Your task to perform on an android device: Go to Google Image 0: 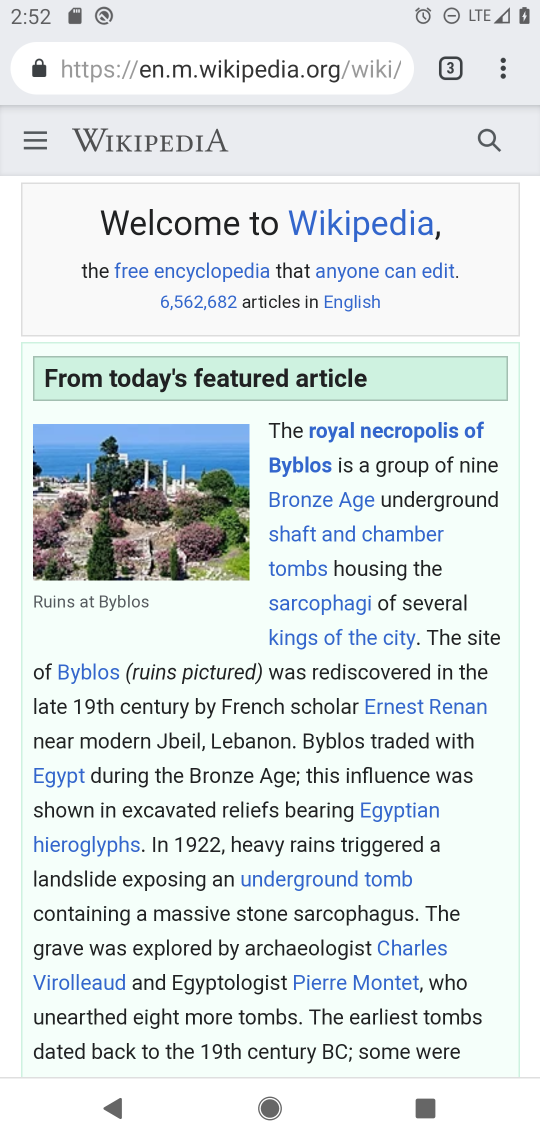
Step 0: press home button
Your task to perform on an android device: Go to Google Image 1: 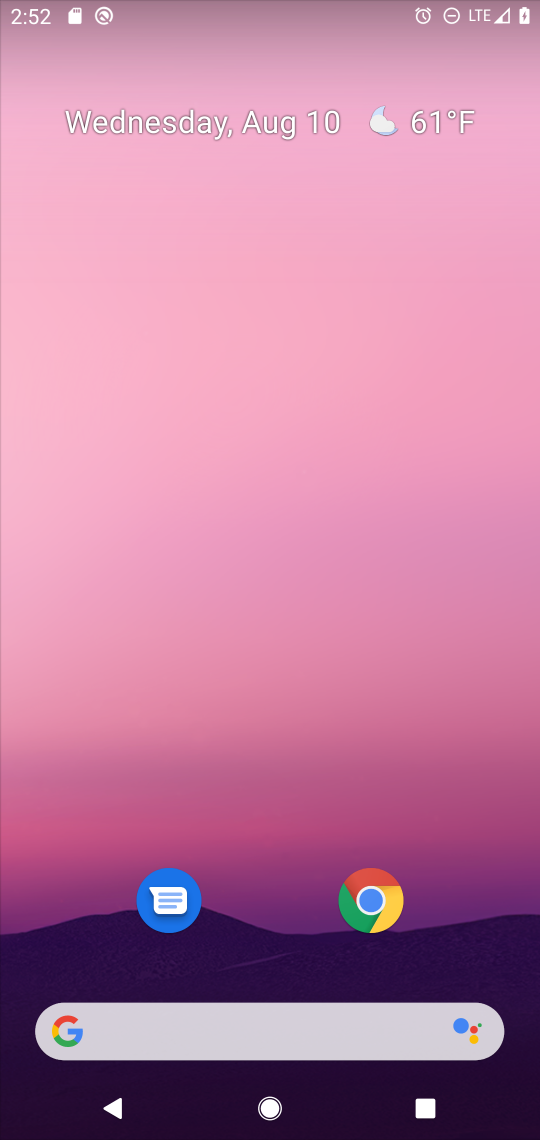
Step 1: click (269, 1036)
Your task to perform on an android device: Go to Google Image 2: 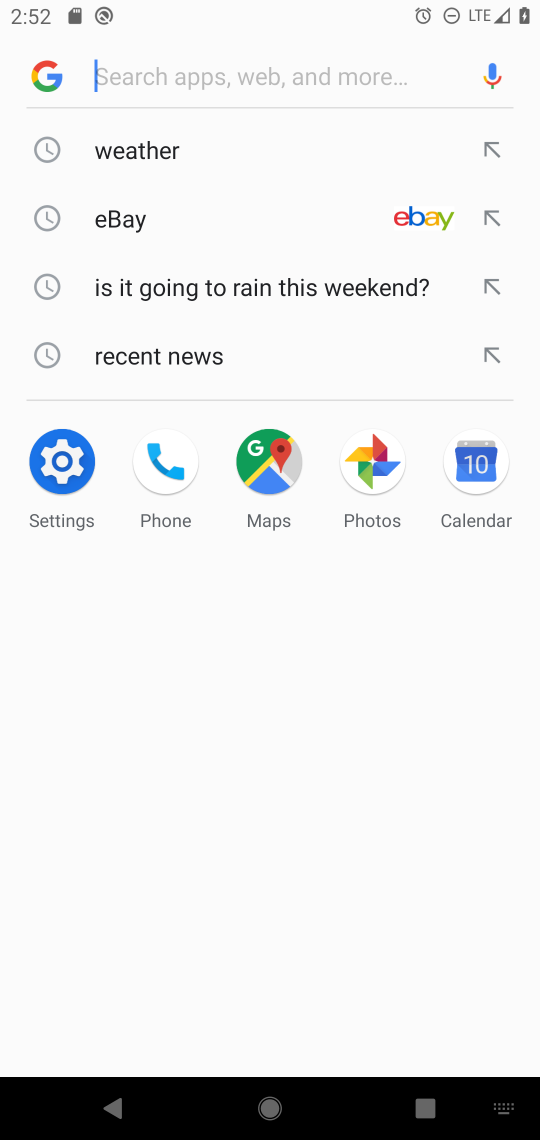
Step 2: click (52, 76)
Your task to perform on an android device: Go to Google Image 3: 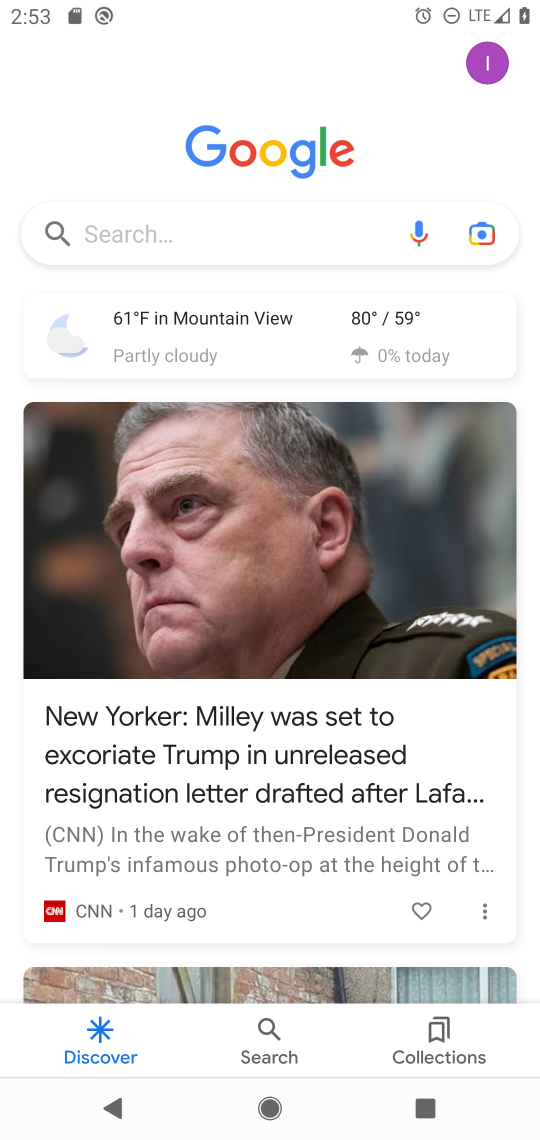
Step 3: task complete